Your task to perform on an android device: Open eBay Image 0: 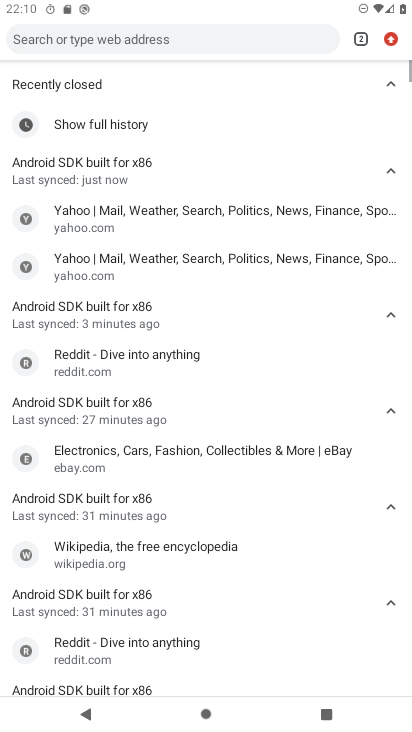
Step 0: press home button
Your task to perform on an android device: Open eBay Image 1: 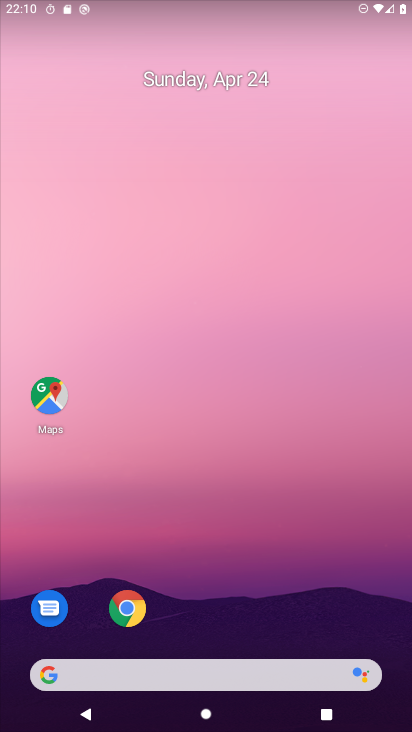
Step 1: click (163, 675)
Your task to perform on an android device: Open eBay Image 2: 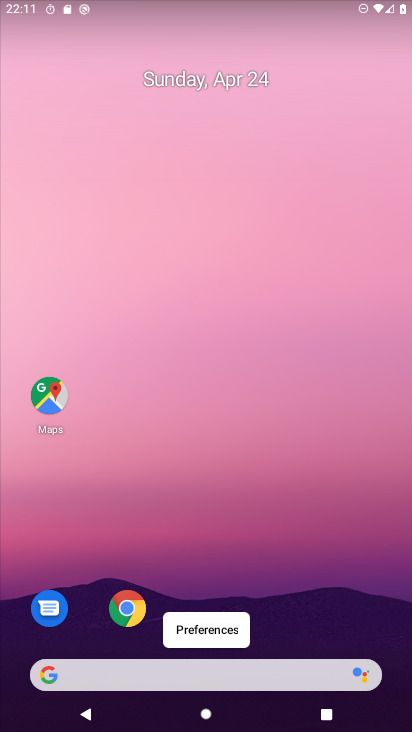
Step 2: click (163, 675)
Your task to perform on an android device: Open eBay Image 3: 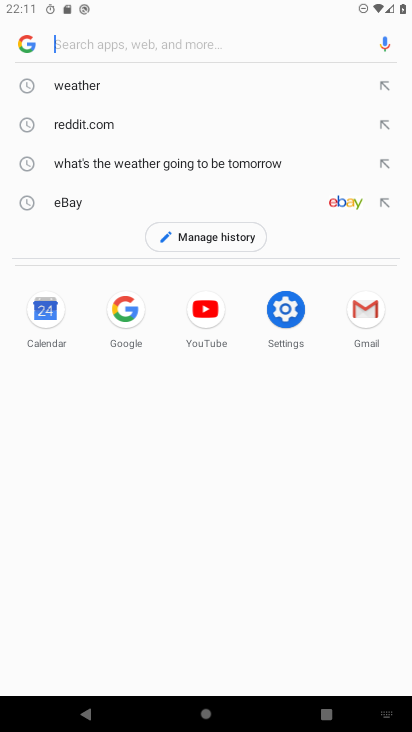
Step 3: click (335, 197)
Your task to perform on an android device: Open eBay Image 4: 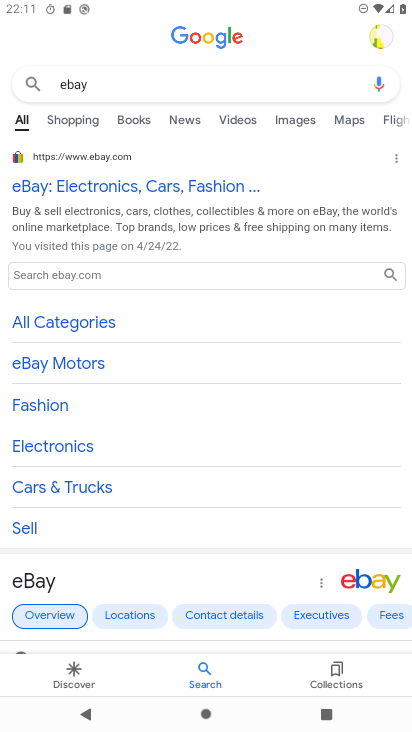
Step 4: click (225, 178)
Your task to perform on an android device: Open eBay Image 5: 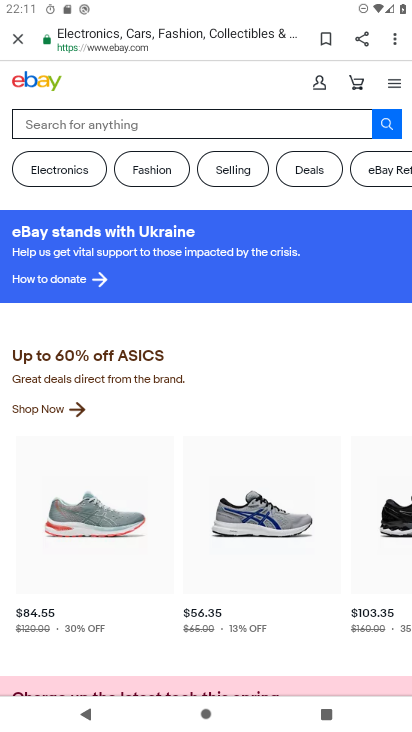
Step 5: task complete